Your task to perform on an android device: install app "Upside-Cash back on gas & food" Image 0: 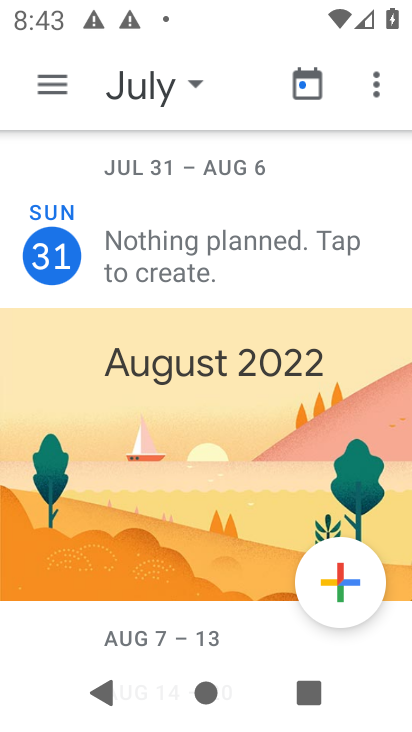
Step 0: click (401, 552)
Your task to perform on an android device: install app "Upside-Cash back on gas & food" Image 1: 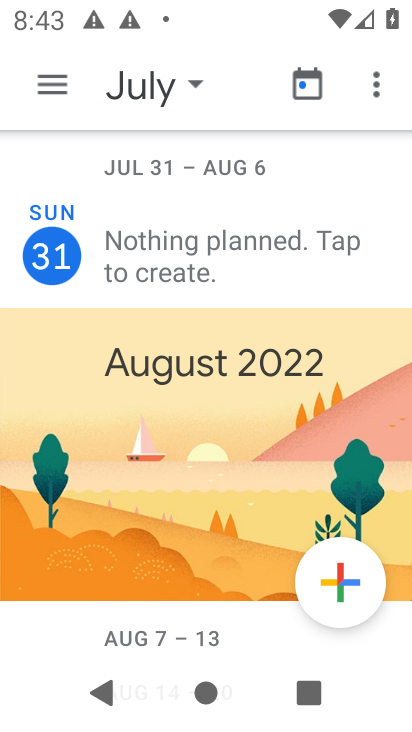
Step 1: press home button
Your task to perform on an android device: install app "Upside-Cash back on gas & food" Image 2: 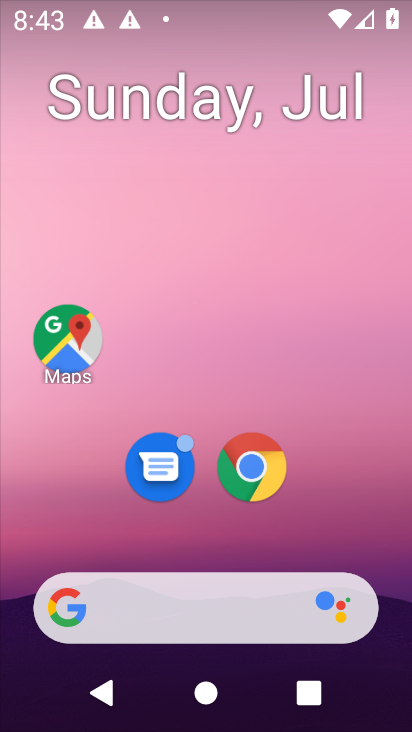
Step 2: drag from (153, 508) to (228, 18)
Your task to perform on an android device: install app "Upside-Cash back on gas & food" Image 3: 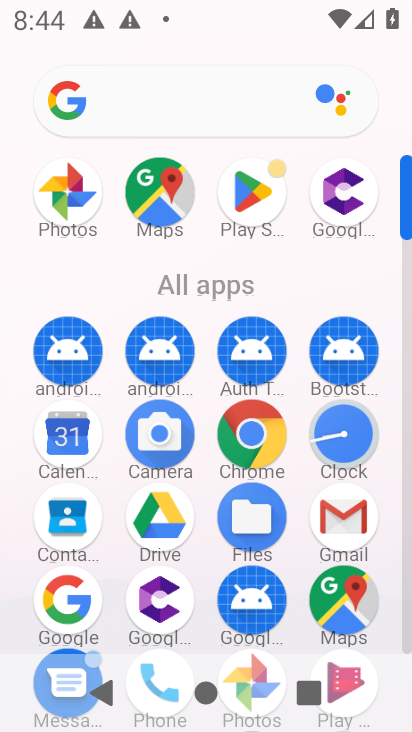
Step 3: click (245, 177)
Your task to perform on an android device: install app "Upside-Cash back on gas & food" Image 4: 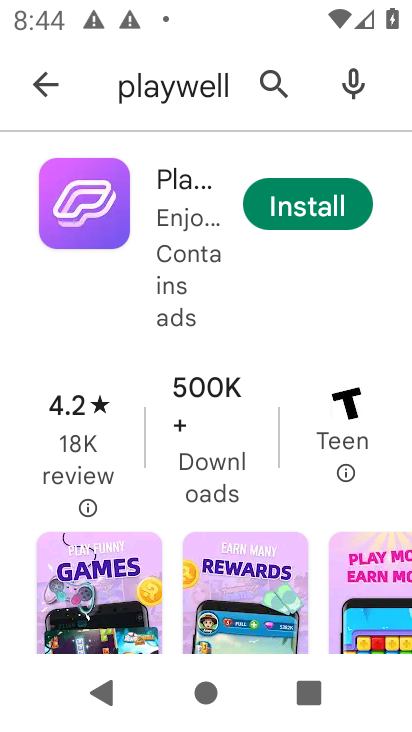
Step 4: click (276, 82)
Your task to perform on an android device: install app "Upside-Cash back on gas & food" Image 5: 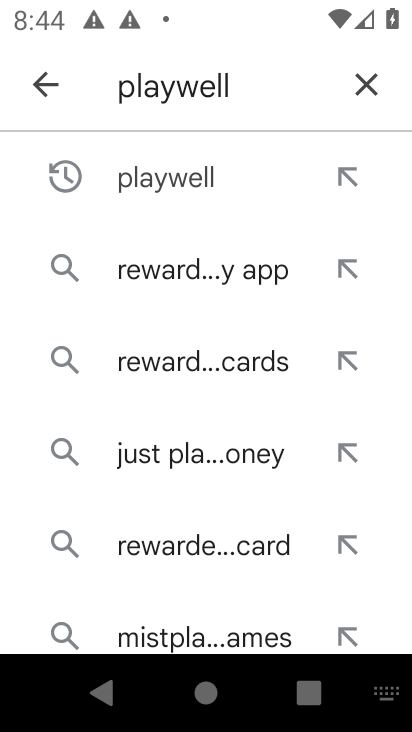
Step 5: click (372, 88)
Your task to perform on an android device: install app "Upside-Cash back on gas & food" Image 6: 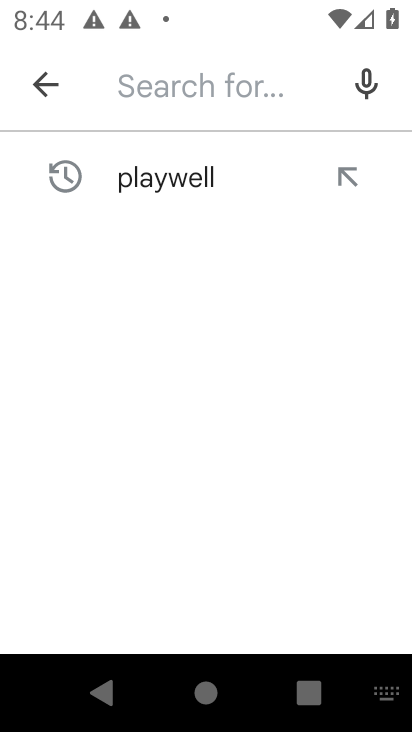
Step 6: type "upside"
Your task to perform on an android device: install app "Upside-Cash back on gas & food" Image 7: 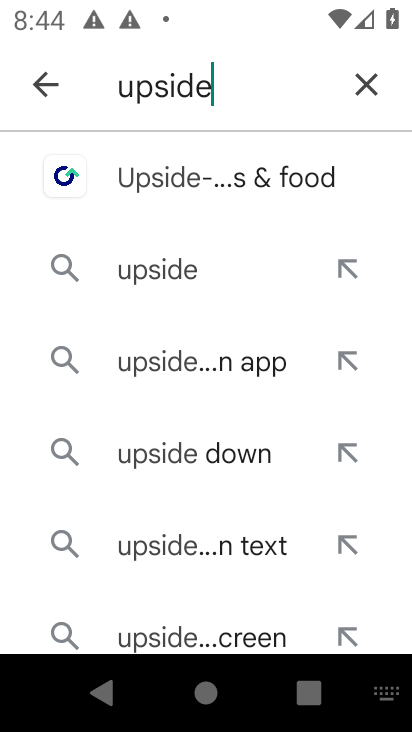
Step 7: click (232, 188)
Your task to perform on an android device: install app "Upside-Cash back on gas & food" Image 8: 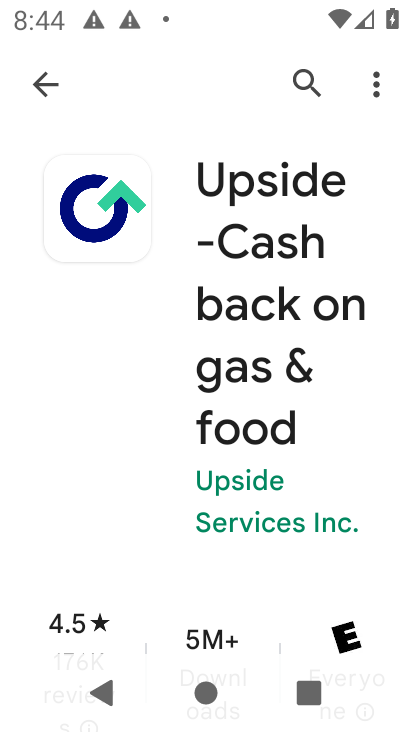
Step 8: drag from (165, 540) to (184, 228)
Your task to perform on an android device: install app "Upside-Cash back on gas & food" Image 9: 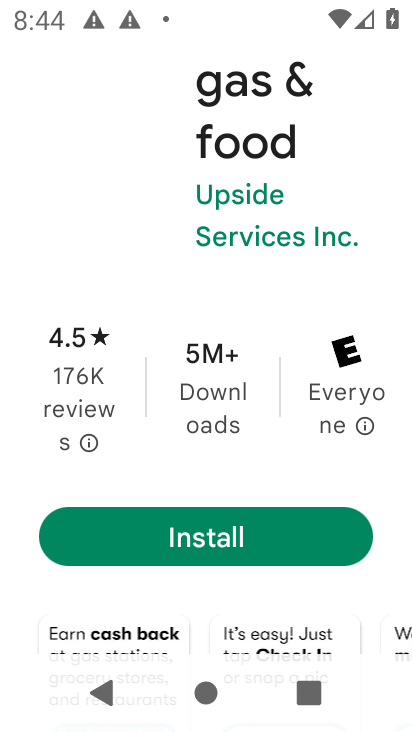
Step 9: click (188, 543)
Your task to perform on an android device: install app "Upside-Cash back on gas & food" Image 10: 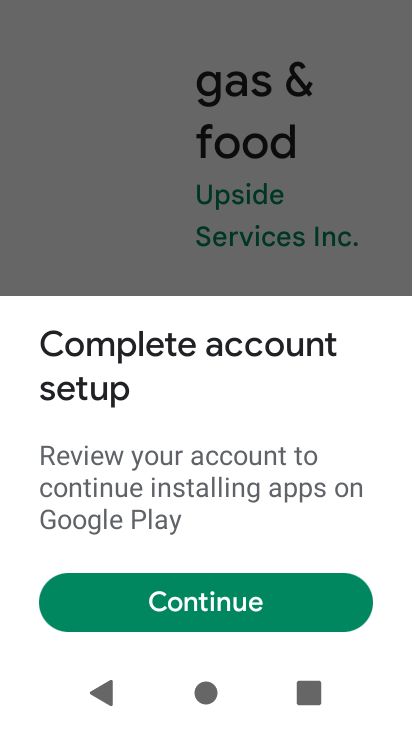
Step 10: click (206, 606)
Your task to perform on an android device: install app "Upside-Cash back on gas & food" Image 11: 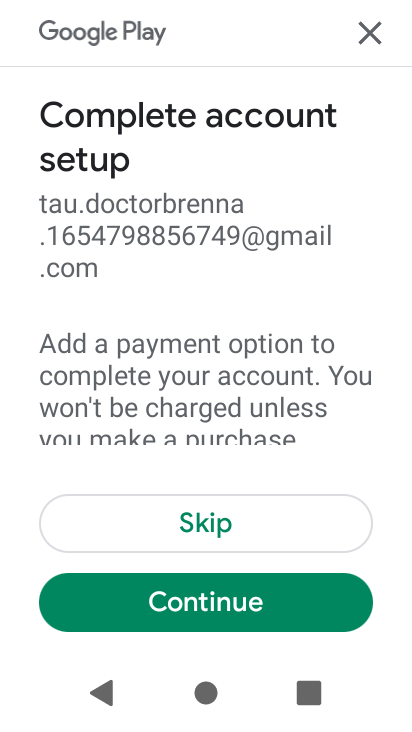
Step 11: click (180, 531)
Your task to perform on an android device: install app "Upside-Cash back on gas & food" Image 12: 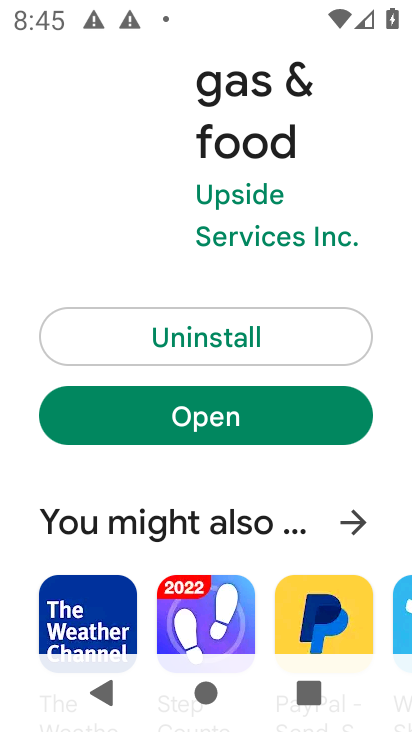
Step 12: task complete